Your task to perform on an android device: find which apps use the phone's location Image 0: 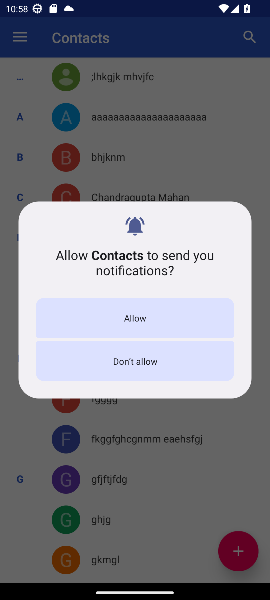
Step 0: press home button
Your task to perform on an android device: find which apps use the phone's location Image 1: 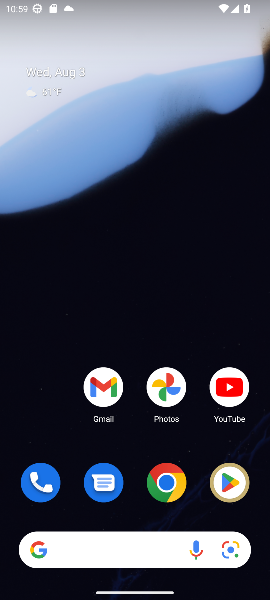
Step 1: drag from (129, 529) to (87, 108)
Your task to perform on an android device: find which apps use the phone's location Image 2: 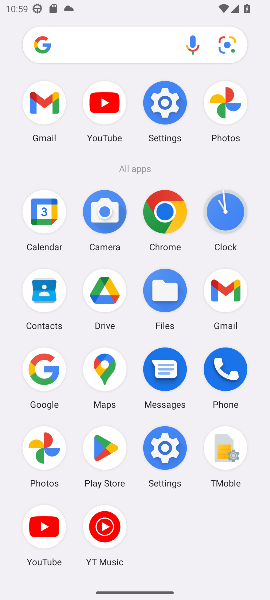
Step 2: click (161, 119)
Your task to perform on an android device: find which apps use the phone's location Image 3: 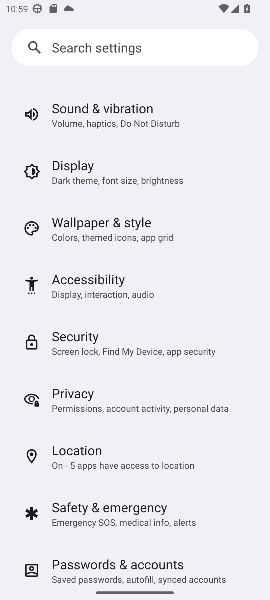
Step 3: task complete